Your task to perform on an android device: turn off data saver in the chrome app Image 0: 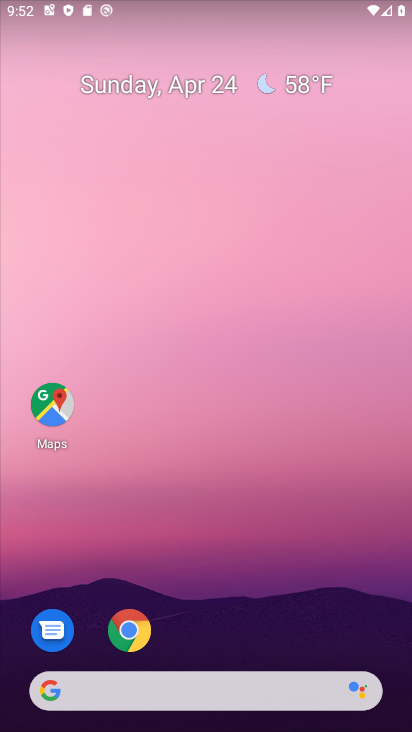
Step 0: drag from (222, 662) to (293, 33)
Your task to perform on an android device: turn off data saver in the chrome app Image 1: 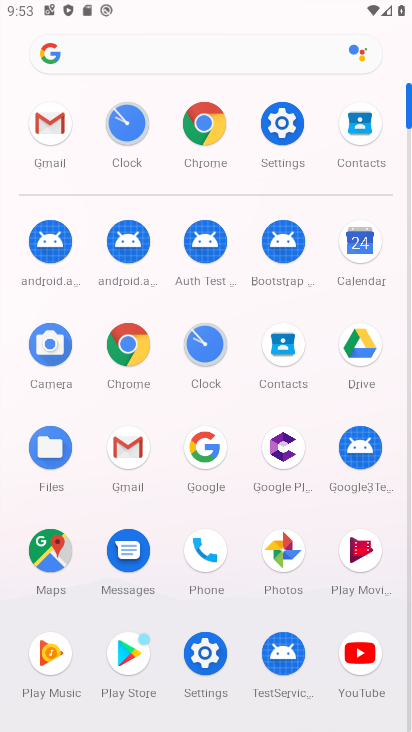
Step 1: click (212, 129)
Your task to perform on an android device: turn off data saver in the chrome app Image 2: 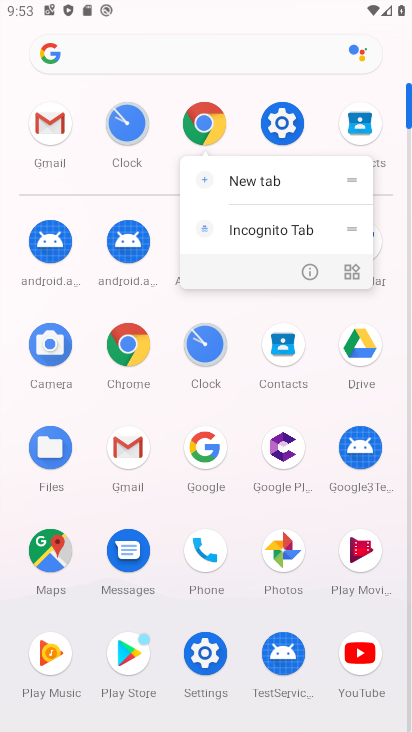
Step 2: click (207, 133)
Your task to perform on an android device: turn off data saver in the chrome app Image 3: 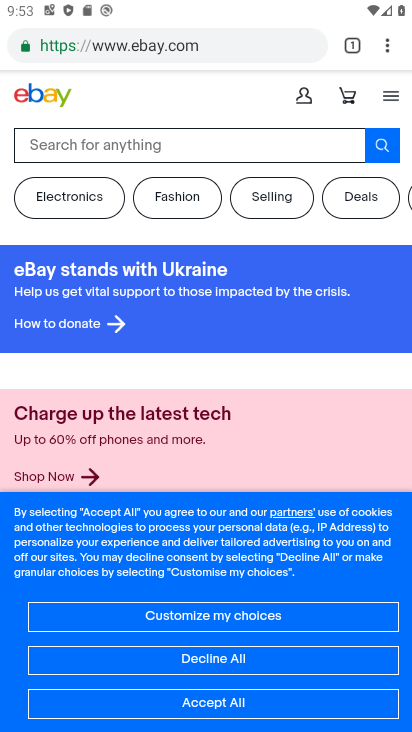
Step 3: click (391, 47)
Your task to perform on an android device: turn off data saver in the chrome app Image 4: 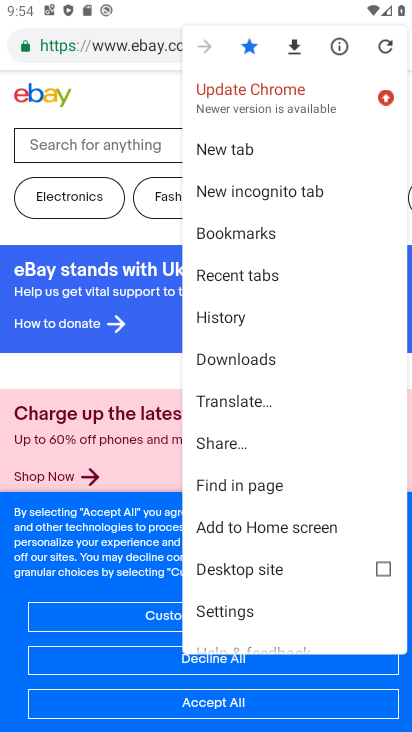
Step 4: click (268, 609)
Your task to perform on an android device: turn off data saver in the chrome app Image 5: 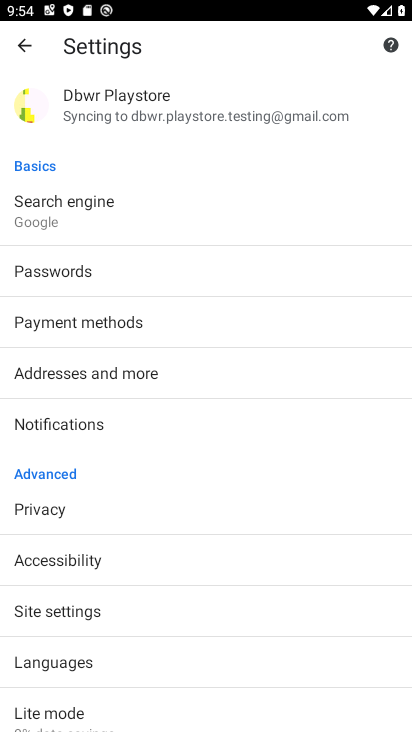
Step 5: drag from (111, 594) to (160, 89)
Your task to perform on an android device: turn off data saver in the chrome app Image 6: 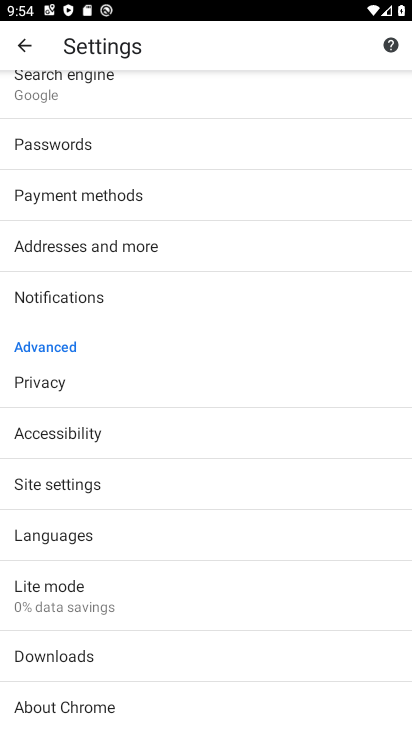
Step 6: drag from (121, 574) to (161, 287)
Your task to perform on an android device: turn off data saver in the chrome app Image 7: 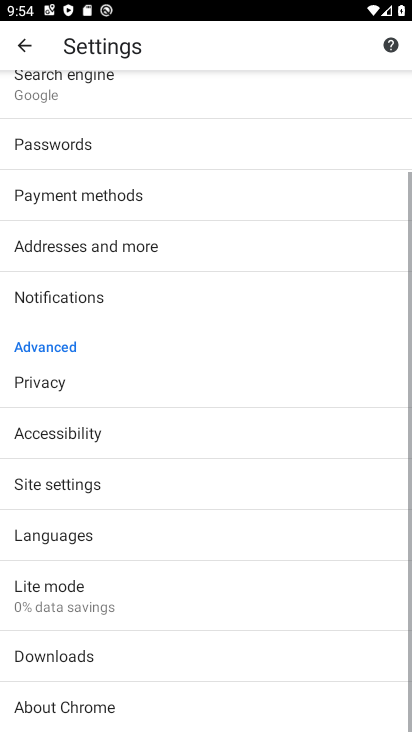
Step 7: click (174, 603)
Your task to perform on an android device: turn off data saver in the chrome app Image 8: 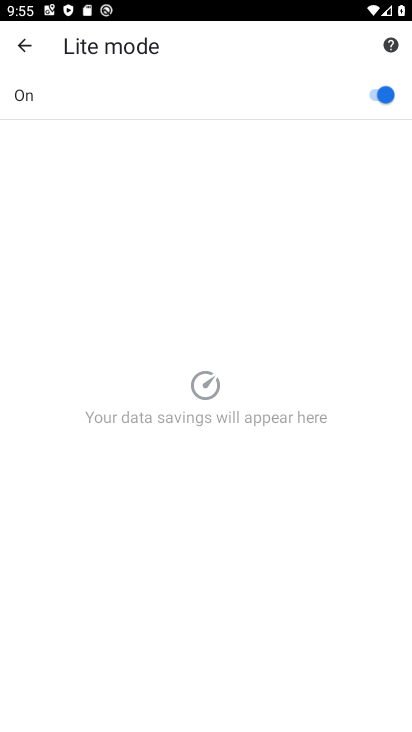
Step 8: click (377, 101)
Your task to perform on an android device: turn off data saver in the chrome app Image 9: 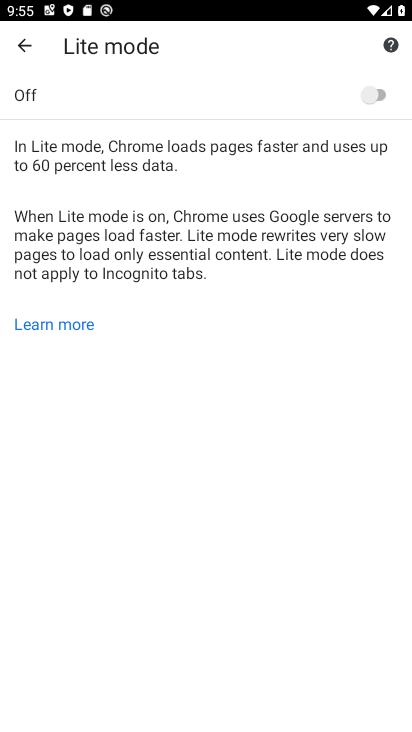
Step 9: task complete